Your task to perform on an android device: turn off priority inbox in the gmail app Image 0: 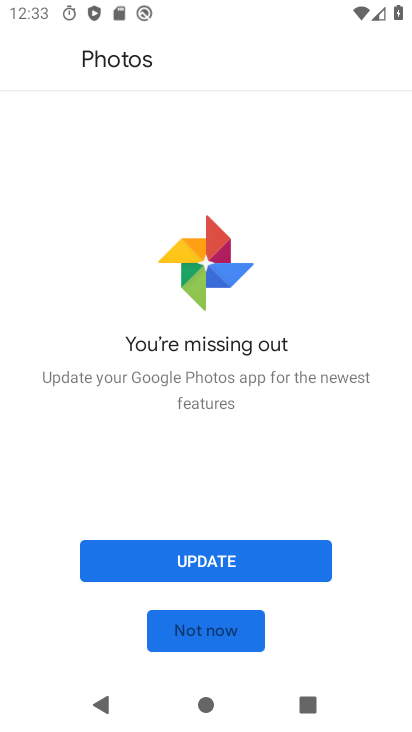
Step 0: press home button
Your task to perform on an android device: turn off priority inbox in the gmail app Image 1: 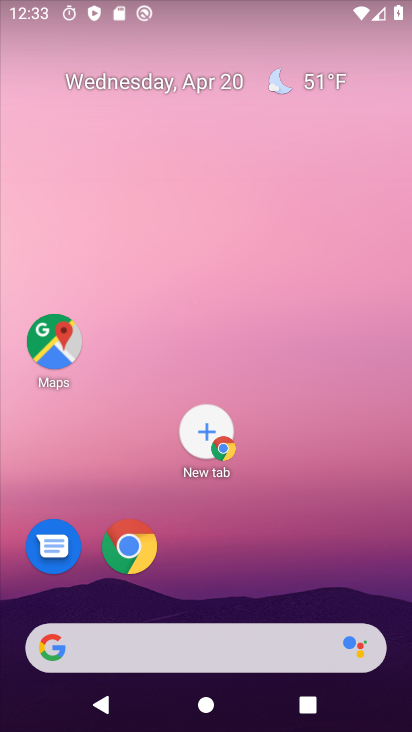
Step 1: drag from (230, 565) to (172, 76)
Your task to perform on an android device: turn off priority inbox in the gmail app Image 2: 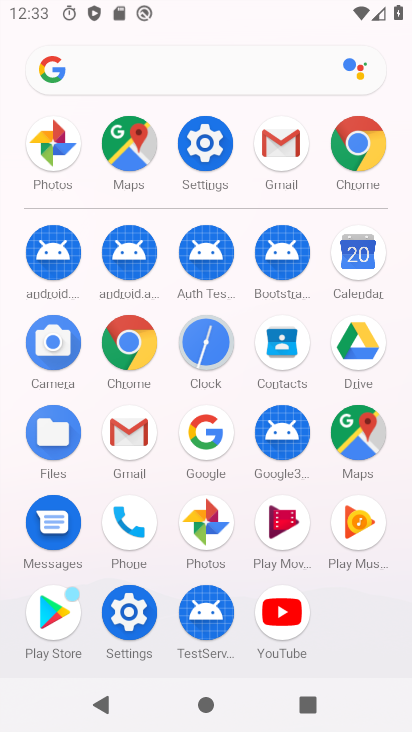
Step 2: click (278, 128)
Your task to perform on an android device: turn off priority inbox in the gmail app Image 3: 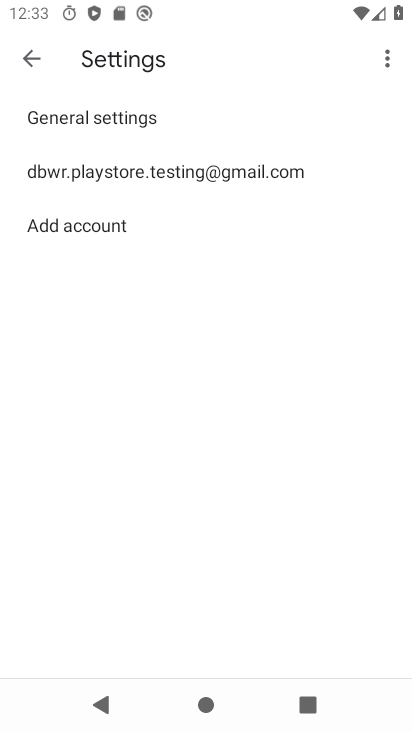
Step 3: click (131, 168)
Your task to perform on an android device: turn off priority inbox in the gmail app Image 4: 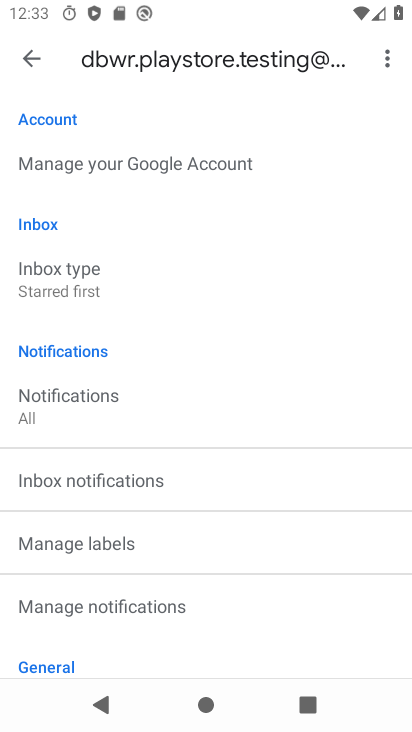
Step 4: click (111, 295)
Your task to perform on an android device: turn off priority inbox in the gmail app Image 5: 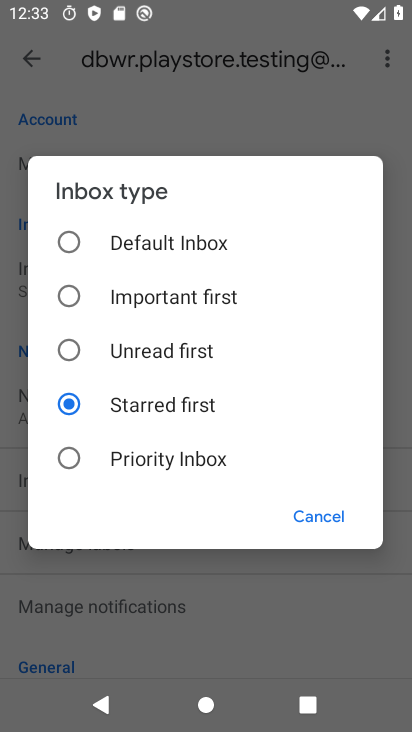
Step 5: task complete